Your task to perform on an android device: open sync settings in chrome Image 0: 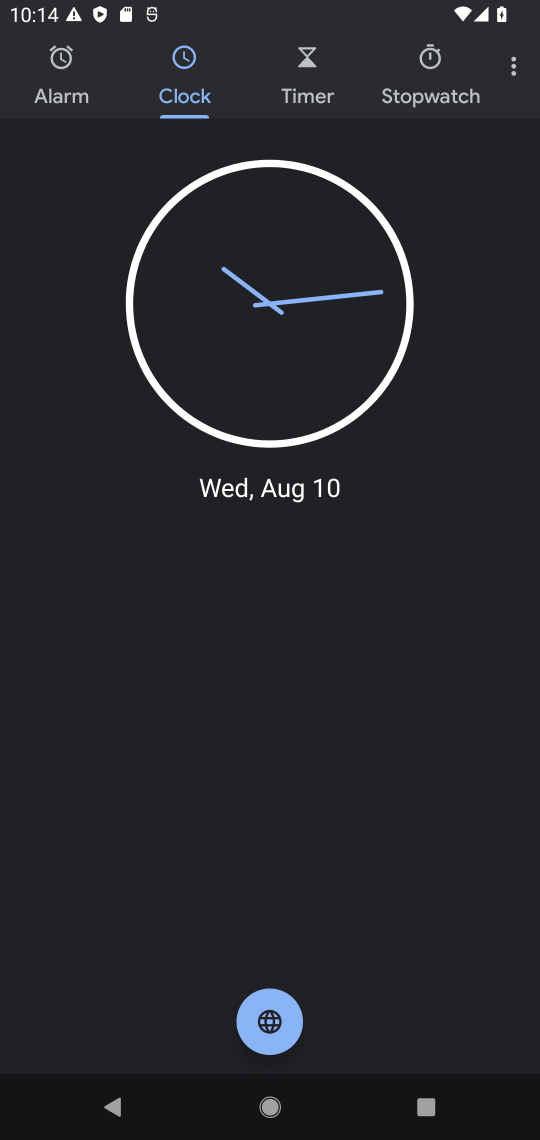
Step 0: press home button
Your task to perform on an android device: open sync settings in chrome Image 1: 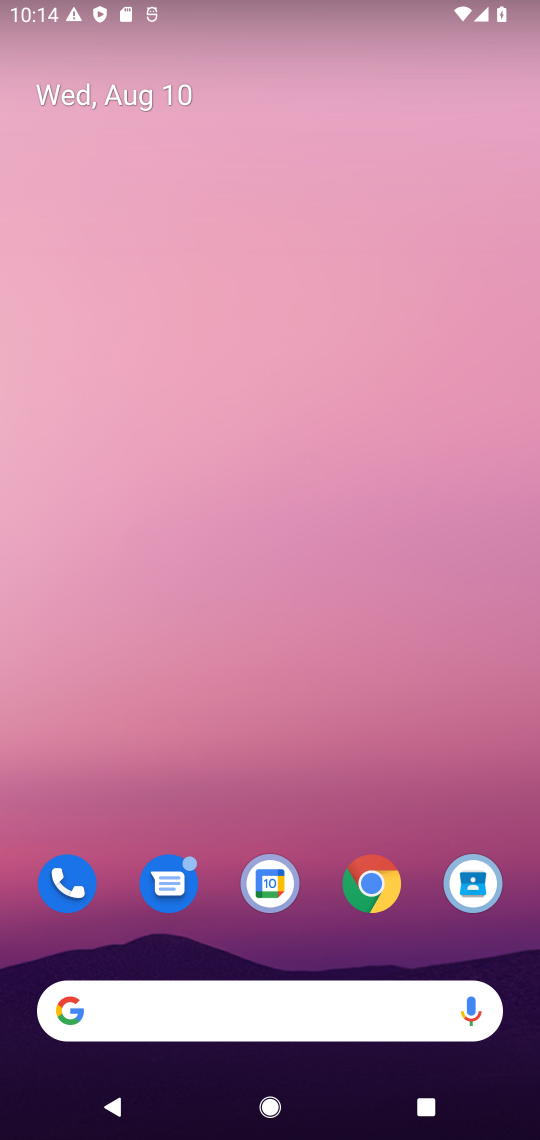
Step 1: drag from (308, 837) to (329, 66)
Your task to perform on an android device: open sync settings in chrome Image 2: 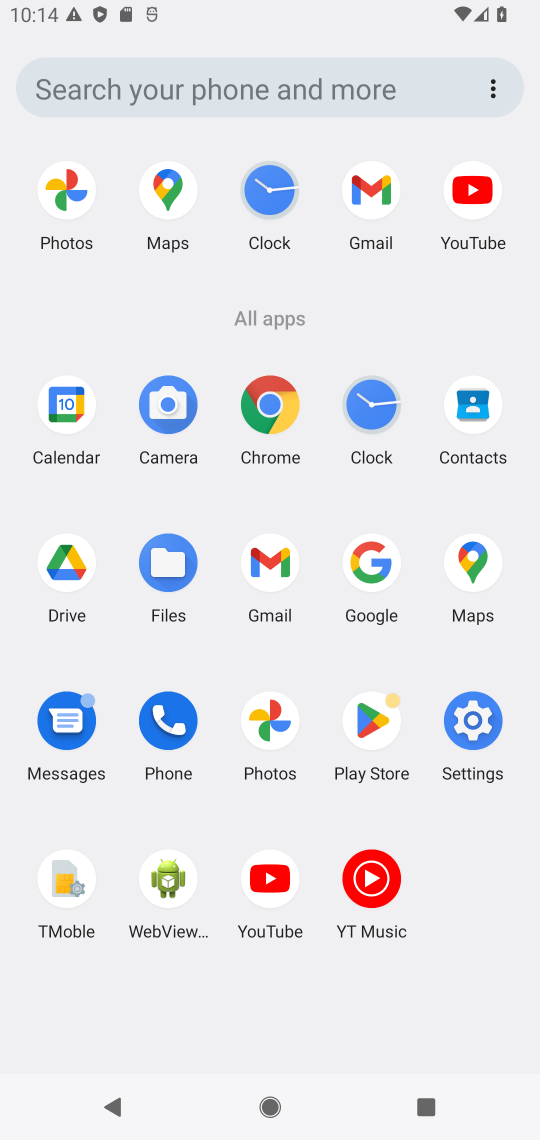
Step 2: click (267, 400)
Your task to perform on an android device: open sync settings in chrome Image 3: 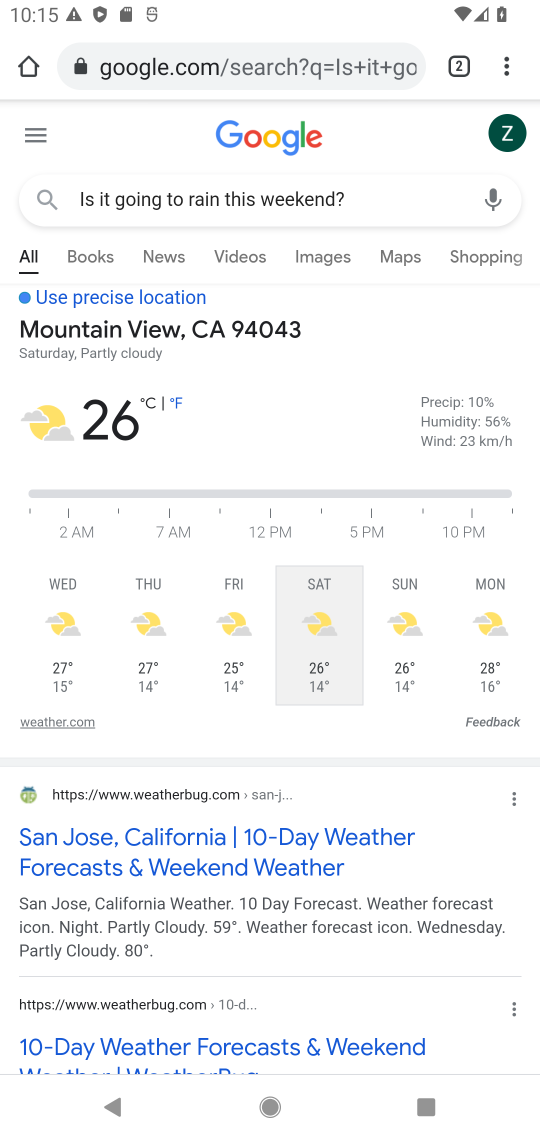
Step 3: drag from (505, 57) to (331, 877)
Your task to perform on an android device: open sync settings in chrome Image 4: 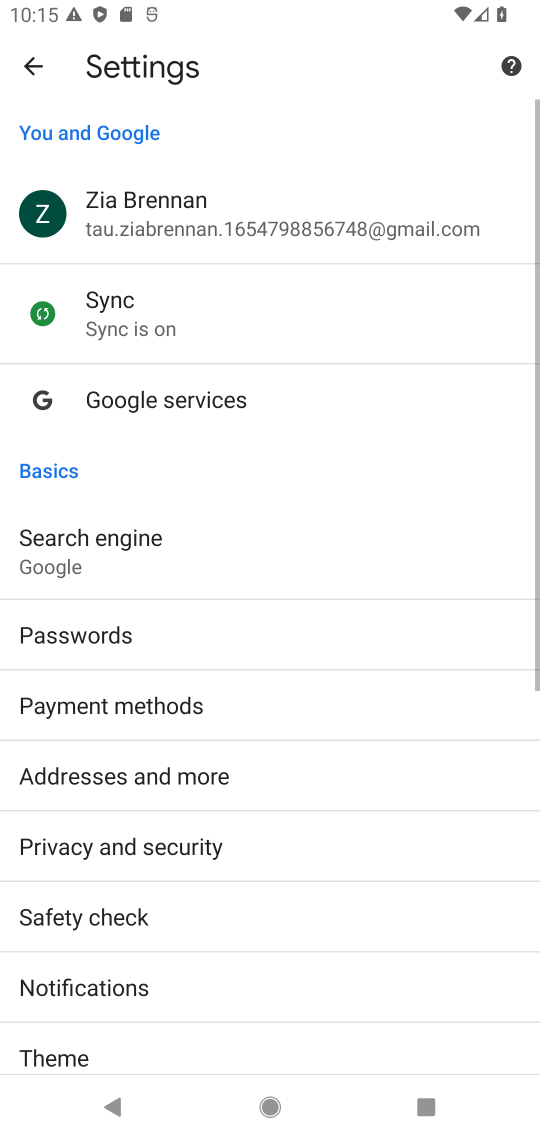
Step 4: click (143, 315)
Your task to perform on an android device: open sync settings in chrome Image 5: 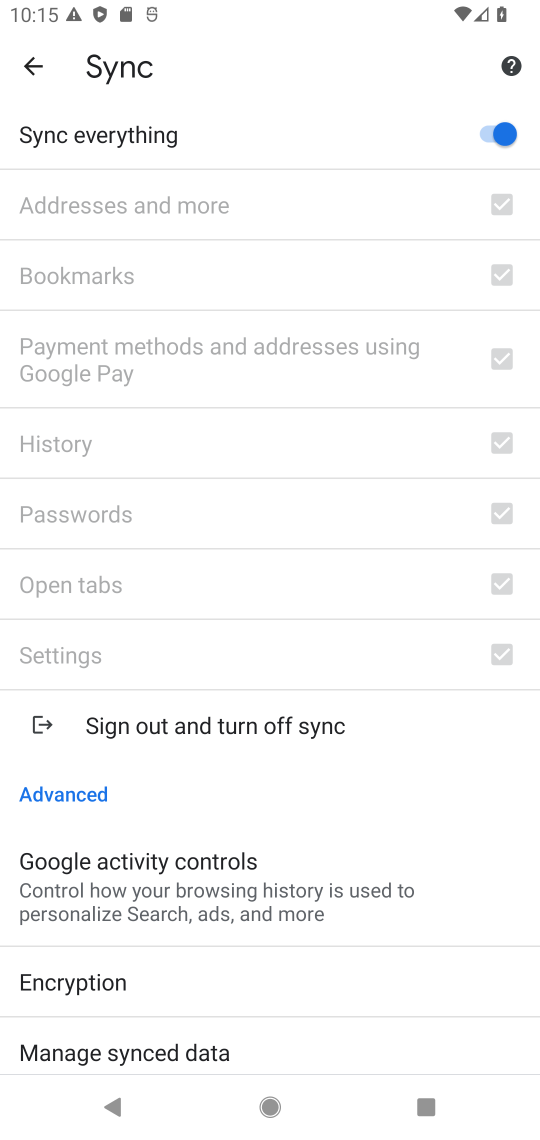
Step 5: click (174, 140)
Your task to perform on an android device: open sync settings in chrome Image 6: 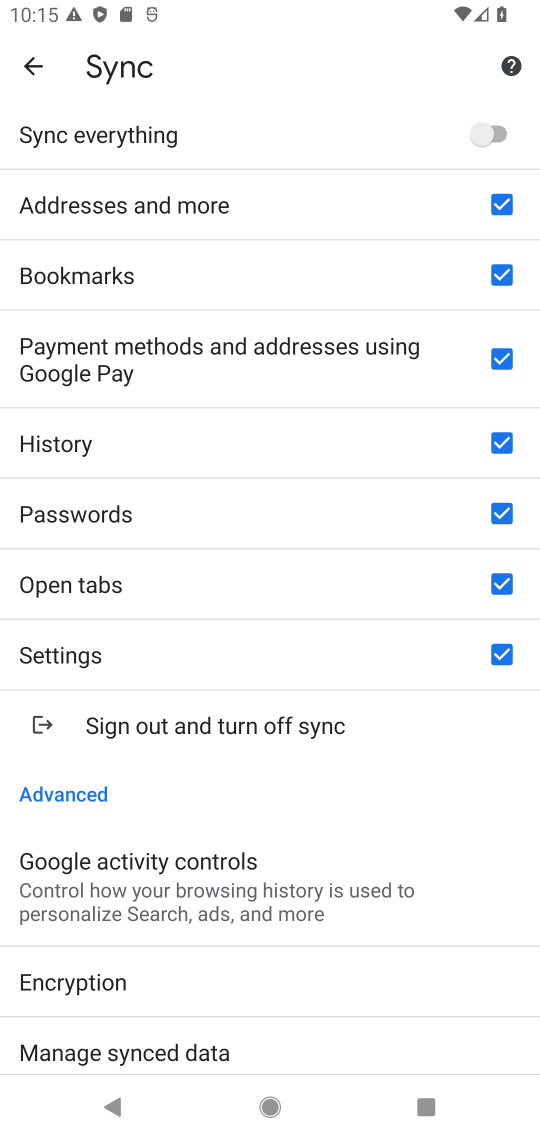
Step 6: click (337, 153)
Your task to perform on an android device: open sync settings in chrome Image 7: 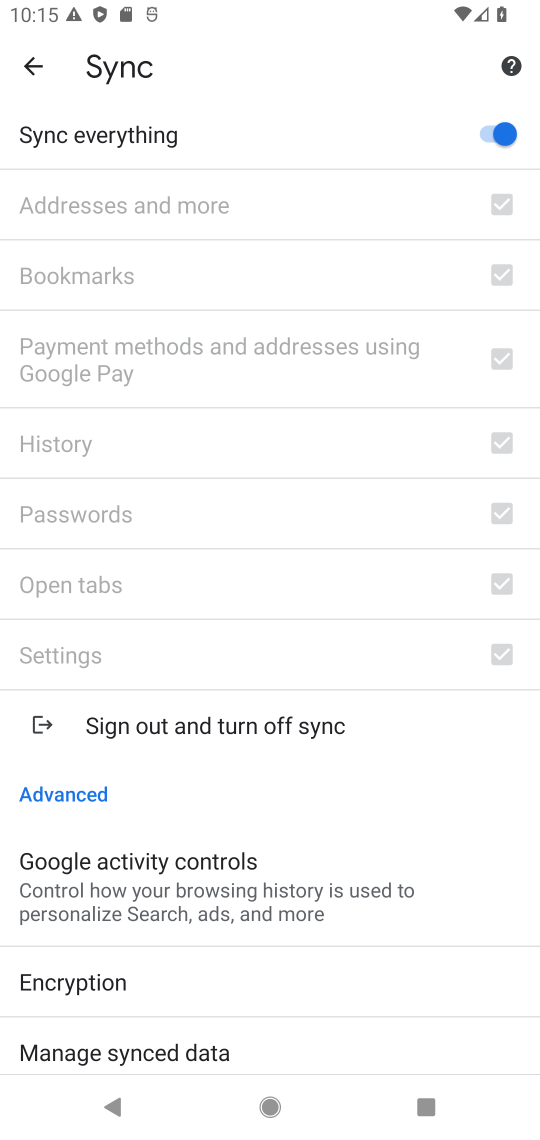
Step 7: task complete